Your task to perform on an android device: turn on data saver in the chrome app Image 0: 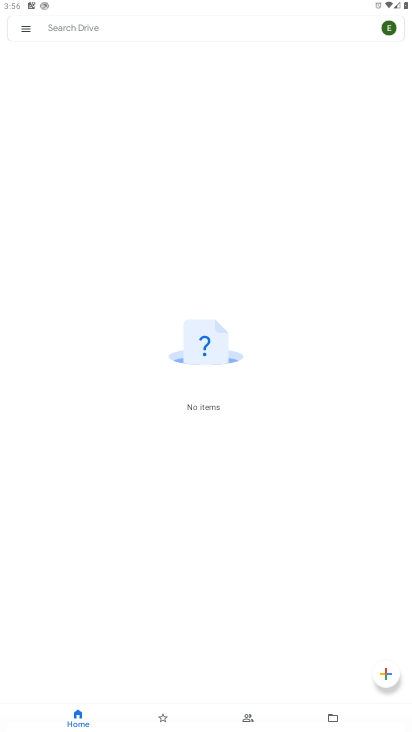
Step 0: press home button
Your task to perform on an android device: turn on data saver in the chrome app Image 1: 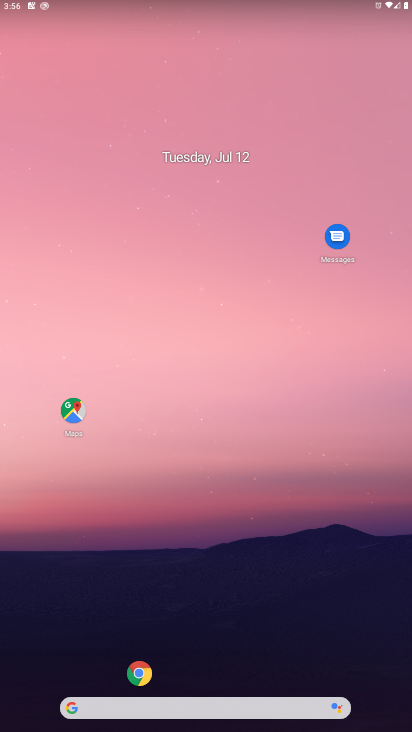
Step 1: click (144, 673)
Your task to perform on an android device: turn on data saver in the chrome app Image 2: 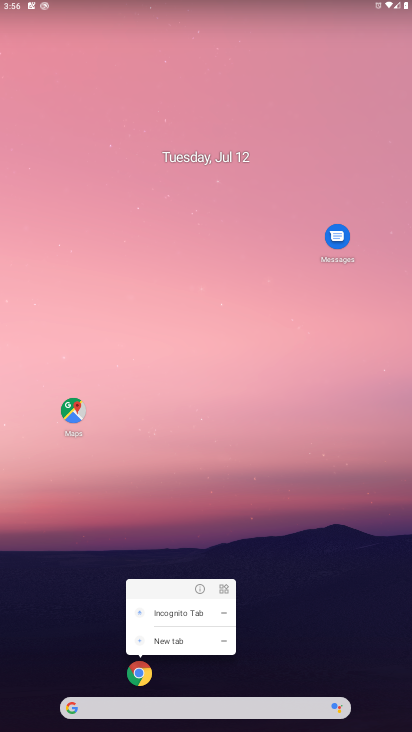
Step 2: click (139, 664)
Your task to perform on an android device: turn on data saver in the chrome app Image 3: 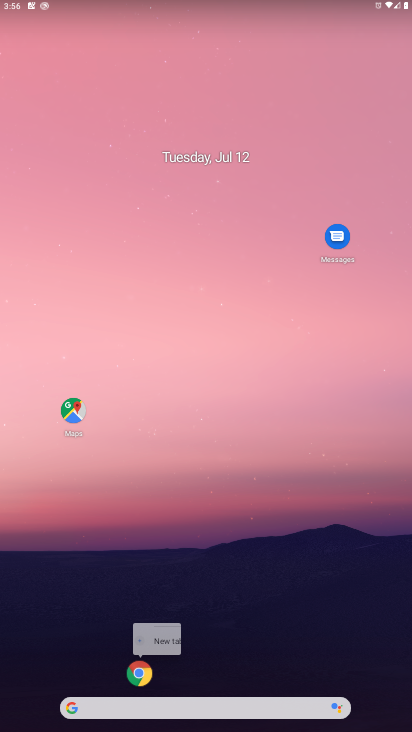
Step 3: click (139, 664)
Your task to perform on an android device: turn on data saver in the chrome app Image 4: 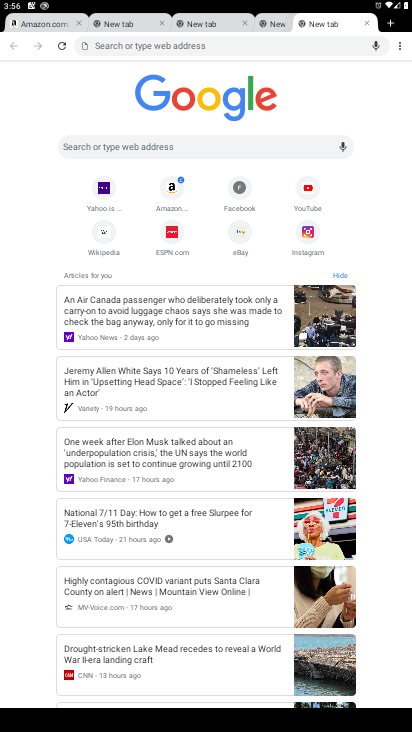
Step 4: task complete